Your task to perform on an android device: Open Google Chrome Image 0: 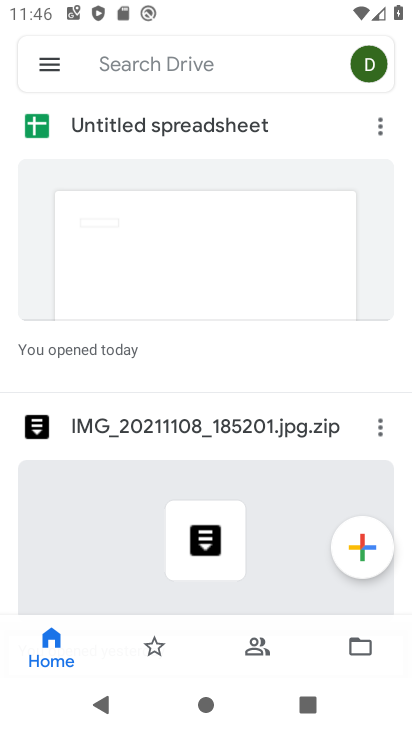
Step 0: press home button
Your task to perform on an android device: Open Google Chrome Image 1: 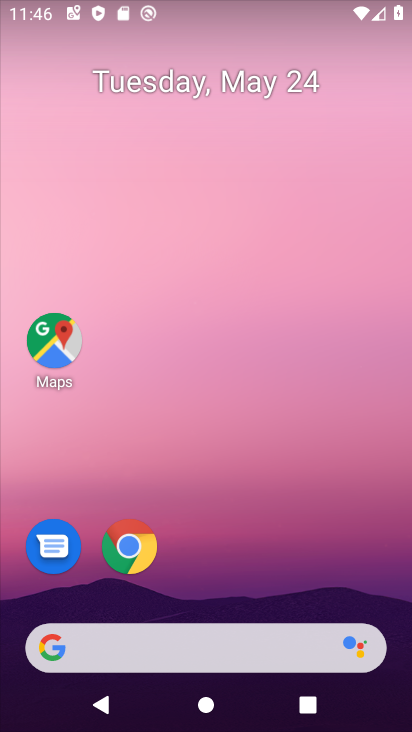
Step 1: drag from (254, 609) to (150, 148)
Your task to perform on an android device: Open Google Chrome Image 2: 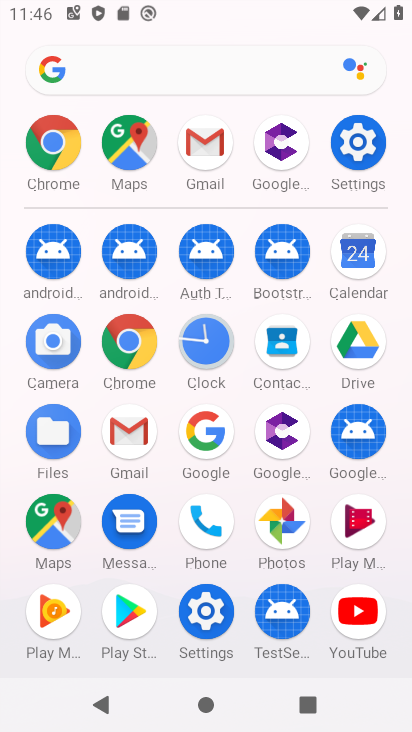
Step 2: click (48, 137)
Your task to perform on an android device: Open Google Chrome Image 3: 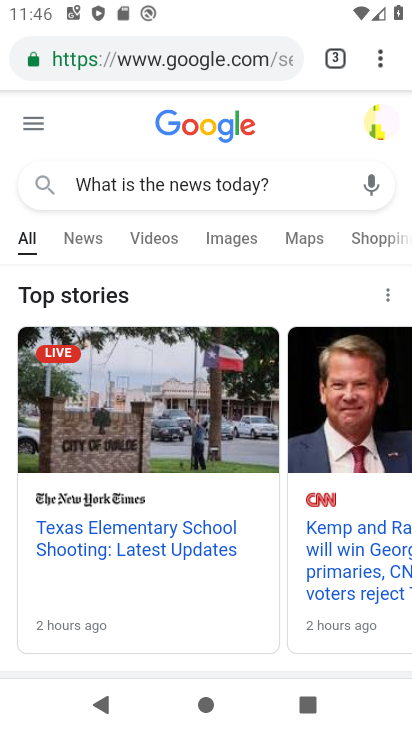
Step 3: task complete